Your task to perform on an android device: turn on improve location accuracy Image 0: 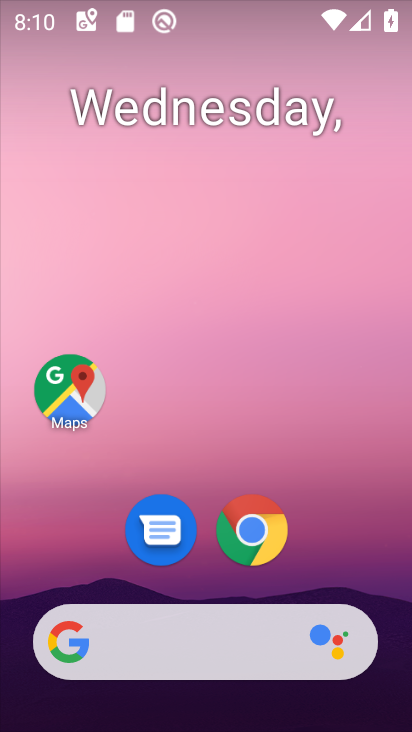
Step 0: drag from (394, 626) to (292, 22)
Your task to perform on an android device: turn on improve location accuracy Image 1: 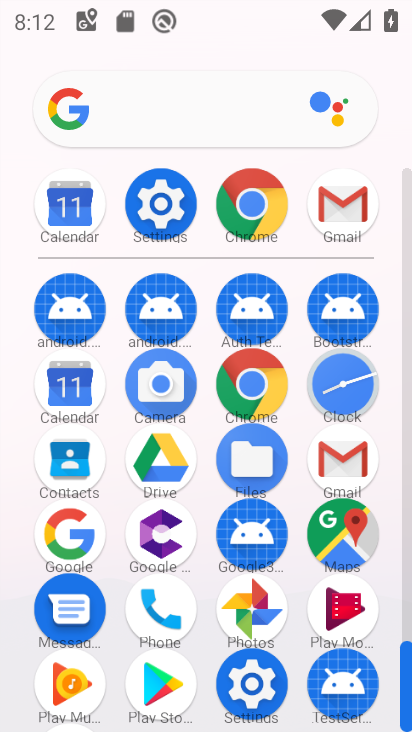
Step 1: click (257, 681)
Your task to perform on an android device: turn on improve location accuracy Image 2: 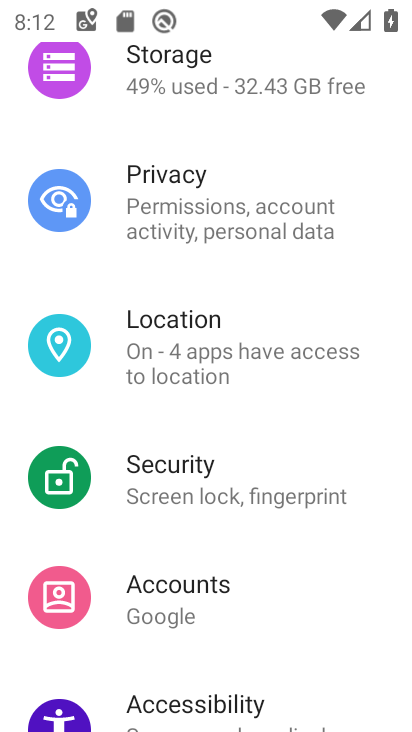
Step 2: click (221, 387)
Your task to perform on an android device: turn on improve location accuracy Image 3: 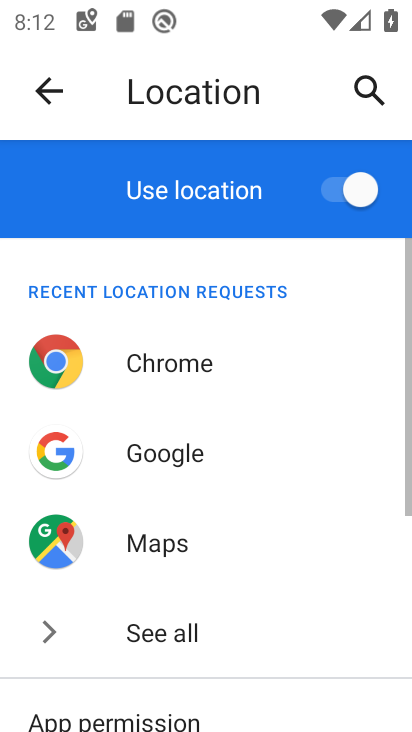
Step 3: drag from (216, 658) to (222, 115)
Your task to perform on an android device: turn on improve location accuracy Image 4: 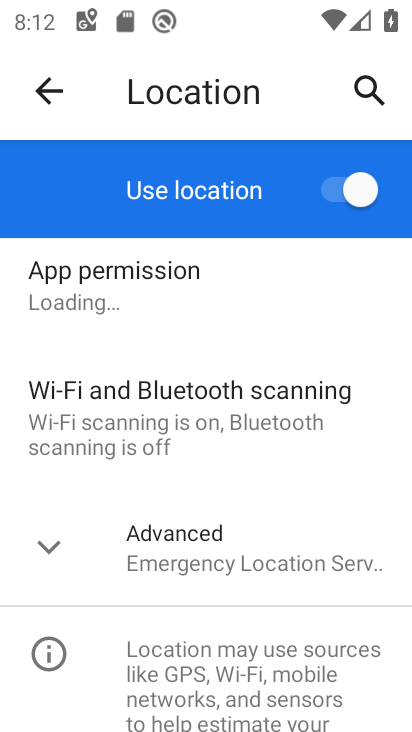
Step 4: click (113, 546)
Your task to perform on an android device: turn on improve location accuracy Image 5: 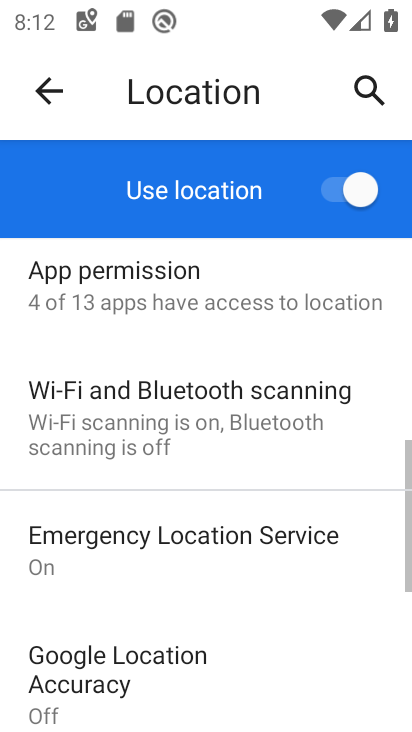
Step 5: drag from (198, 636) to (263, 451)
Your task to perform on an android device: turn on improve location accuracy Image 6: 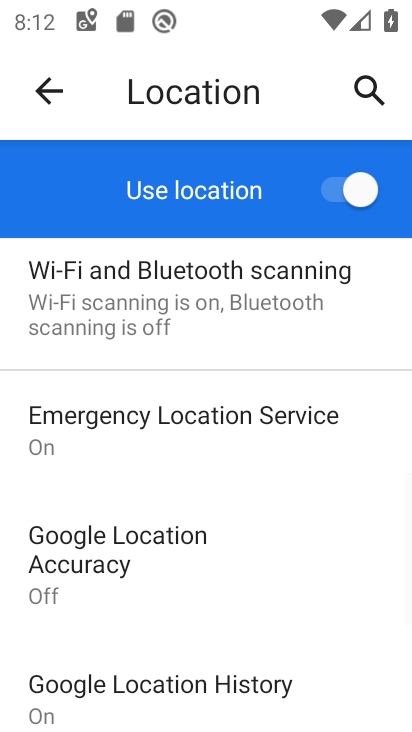
Step 6: click (179, 564)
Your task to perform on an android device: turn on improve location accuracy Image 7: 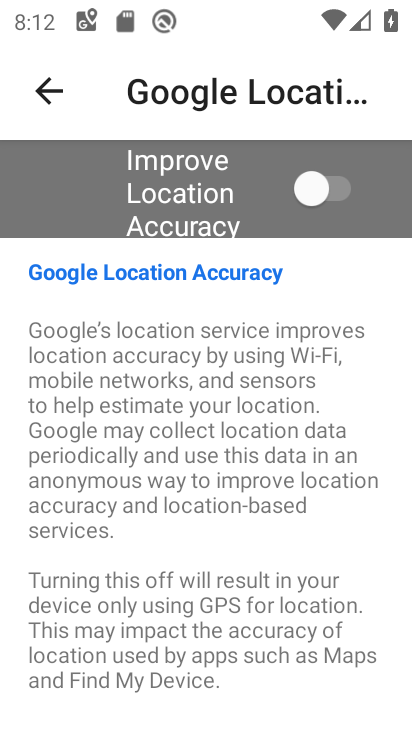
Step 7: click (306, 190)
Your task to perform on an android device: turn on improve location accuracy Image 8: 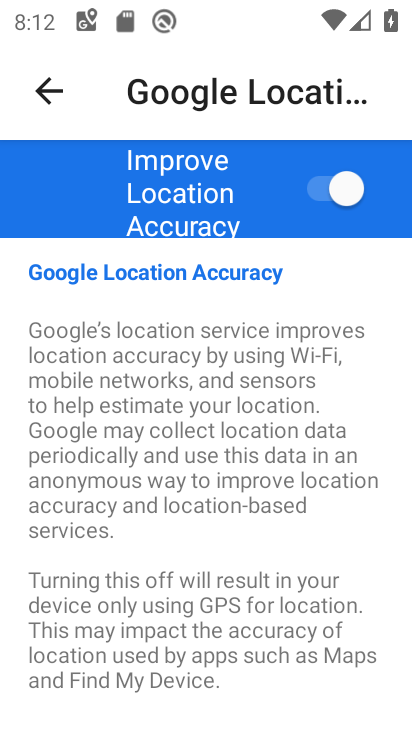
Step 8: task complete